Your task to perform on an android device: open chrome privacy settings Image 0: 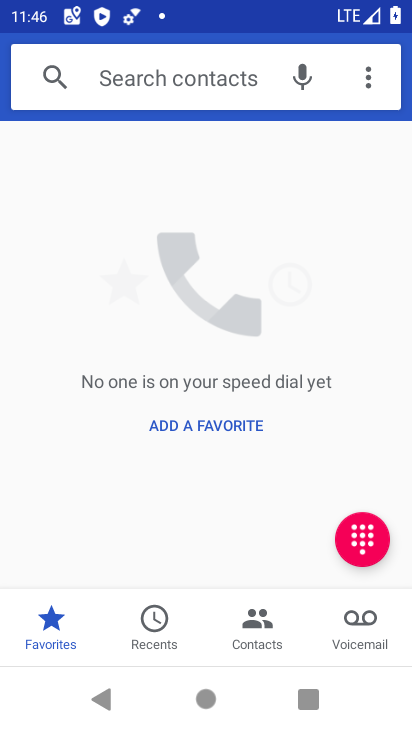
Step 0: press home button
Your task to perform on an android device: open chrome privacy settings Image 1: 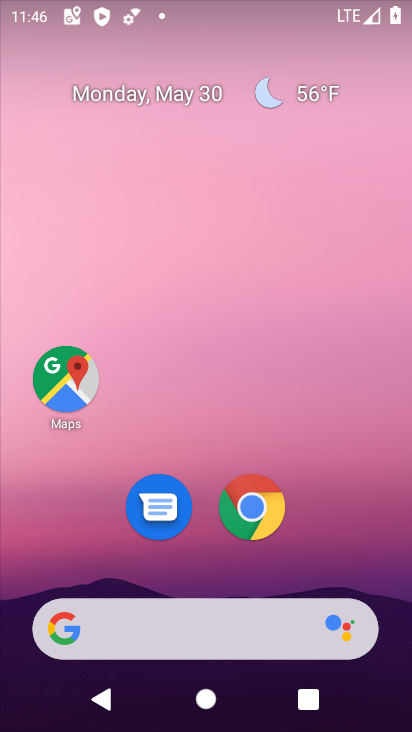
Step 1: click (265, 495)
Your task to perform on an android device: open chrome privacy settings Image 2: 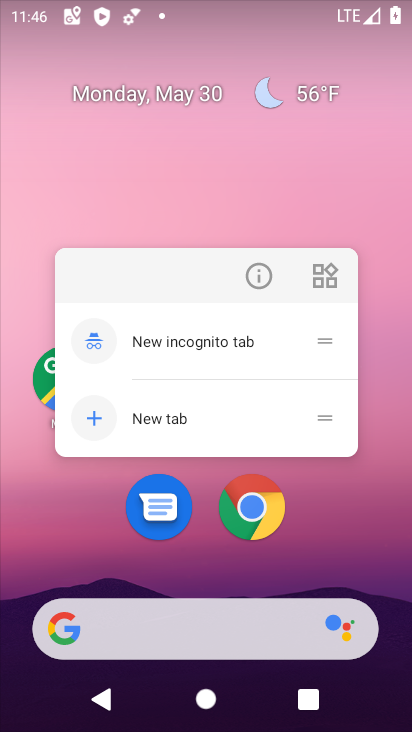
Step 2: click (258, 510)
Your task to perform on an android device: open chrome privacy settings Image 3: 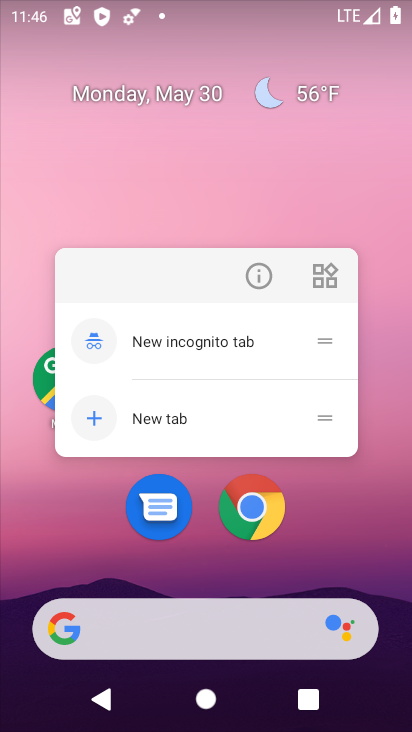
Step 3: click (256, 509)
Your task to perform on an android device: open chrome privacy settings Image 4: 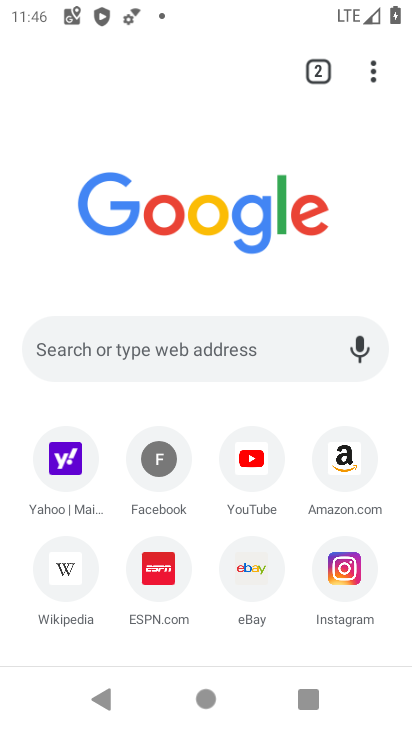
Step 4: drag from (371, 72) to (269, 502)
Your task to perform on an android device: open chrome privacy settings Image 5: 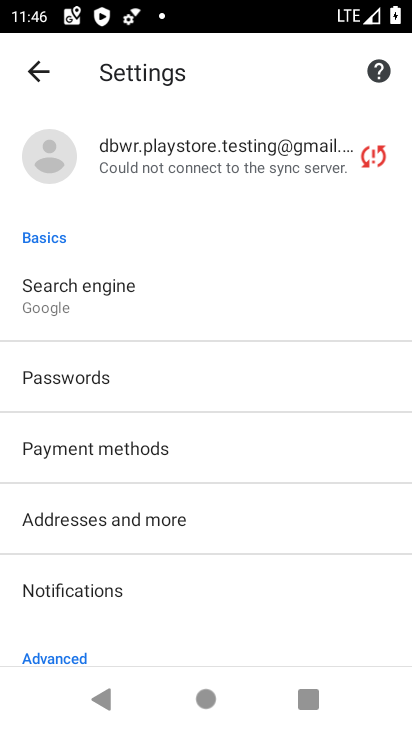
Step 5: drag from (328, 642) to (329, 324)
Your task to perform on an android device: open chrome privacy settings Image 6: 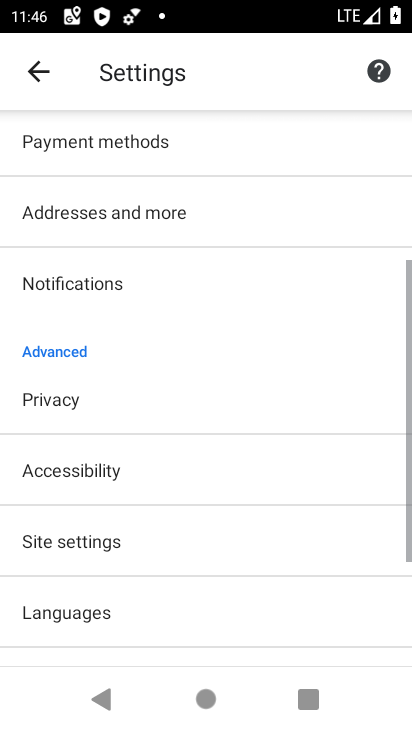
Step 6: click (187, 404)
Your task to perform on an android device: open chrome privacy settings Image 7: 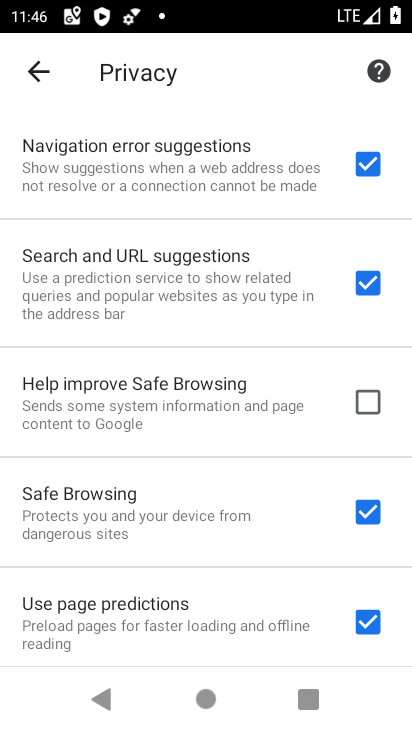
Step 7: task complete